Your task to perform on an android device: Open Amazon Image 0: 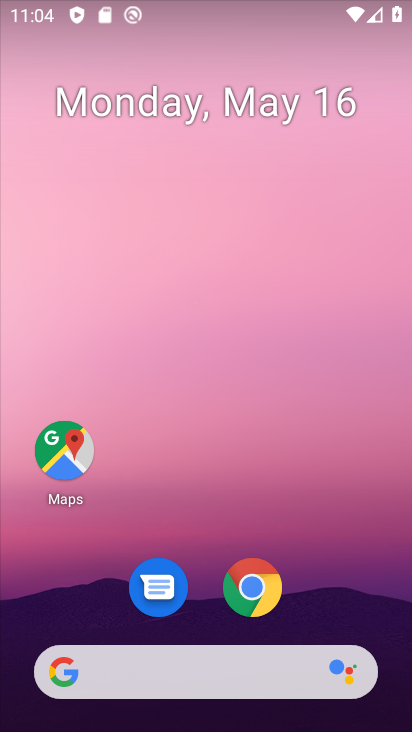
Step 0: drag from (321, 598) to (287, 188)
Your task to perform on an android device: Open Amazon Image 1: 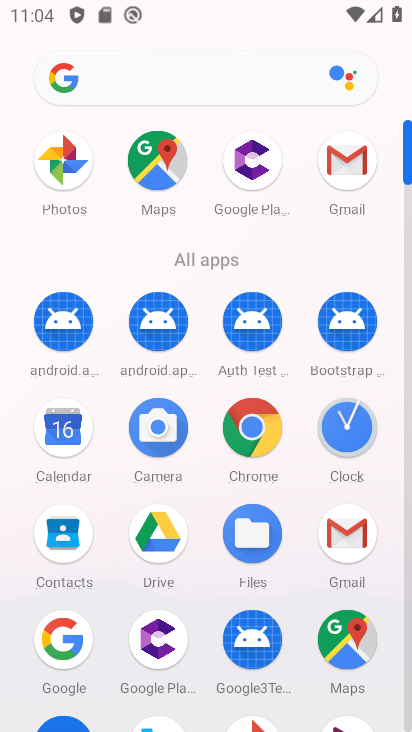
Step 1: click (238, 428)
Your task to perform on an android device: Open Amazon Image 2: 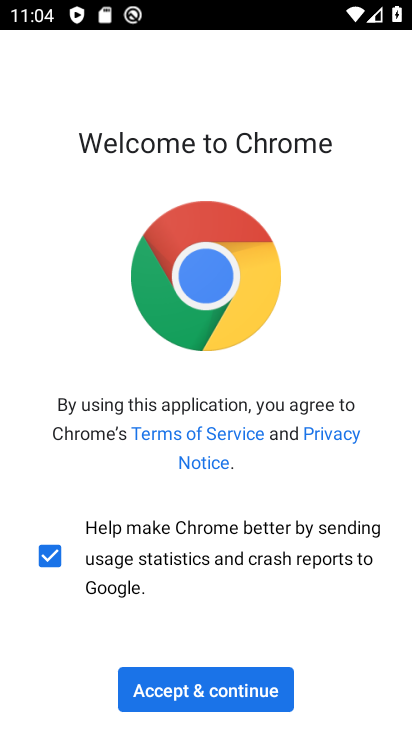
Step 2: click (195, 700)
Your task to perform on an android device: Open Amazon Image 3: 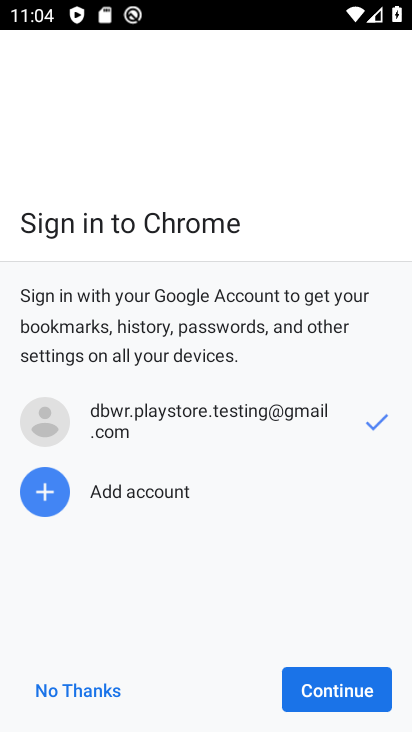
Step 3: click (343, 681)
Your task to perform on an android device: Open Amazon Image 4: 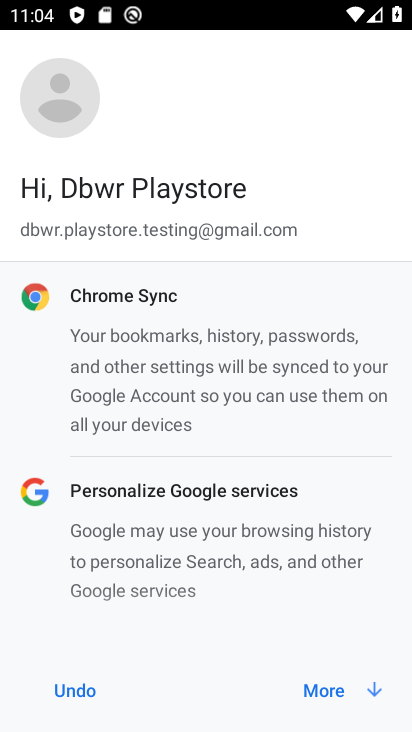
Step 4: click (313, 708)
Your task to perform on an android device: Open Amazon Image 5: 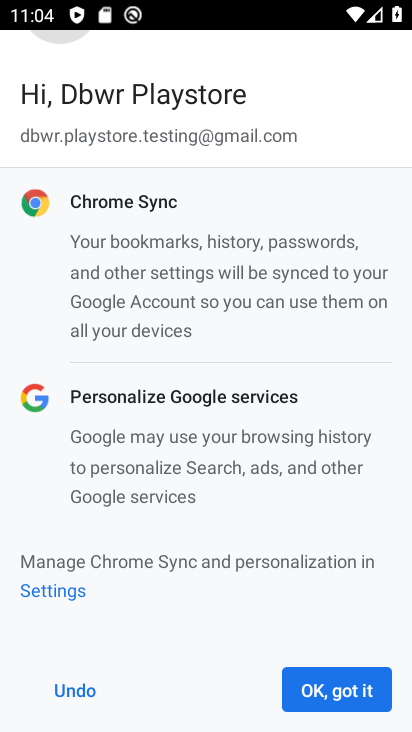
Step 5: click (312, 704)
Your task to perform on an android device: Open Amazon Image 6: 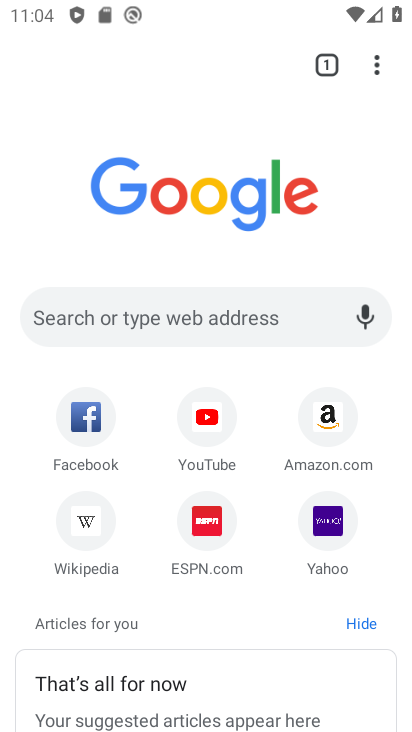
Step 6: click (335, 420)
Your task to perform on an android device: Open Amazon Image 7: 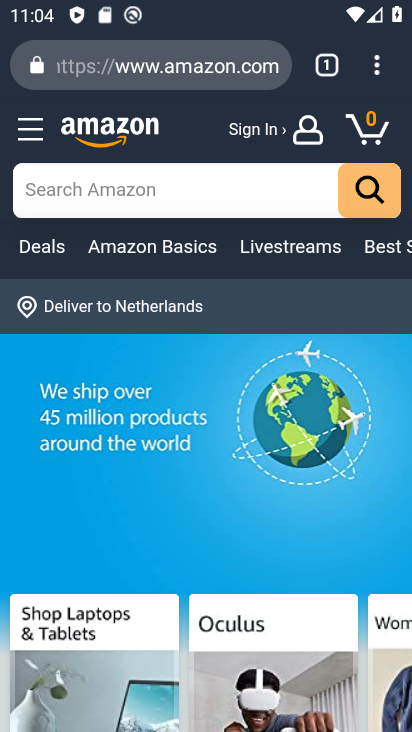
Step 7: task complete